Your task to perform on an android device: Go to internet settings Image 0: 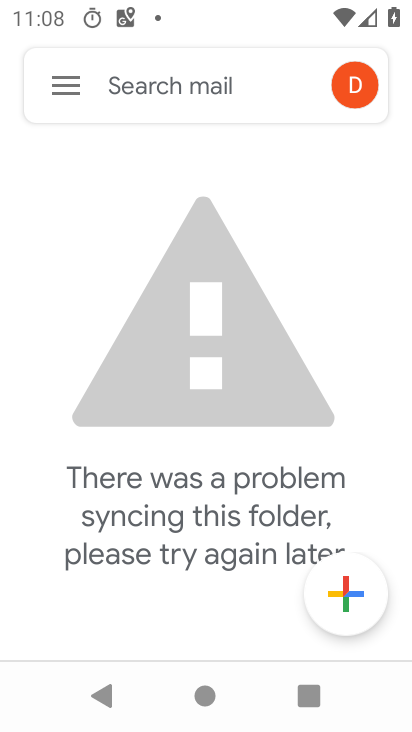
Step 0: press home button
Your task to perform on an android device: Go to internet settings Image 1: 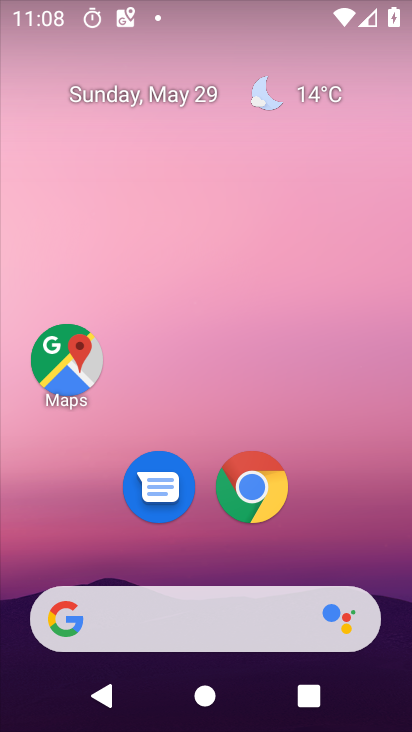
Step 1: drag from (389, 701) to (275, 106)
Your task to perform on an android device: Go to internet settings Image 2: 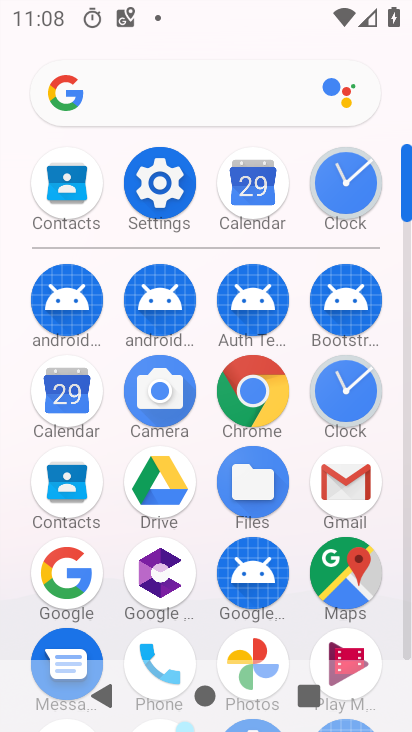
Step 2: click (158, 194)
Your task to perform on an android device: Go to internet settings Image 3: 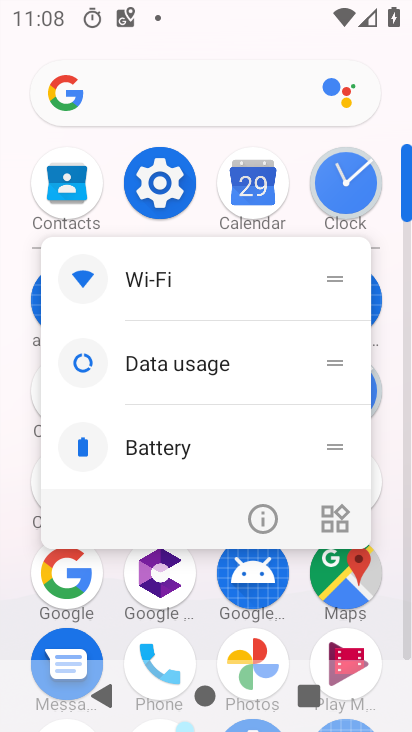
Step 3: click (151, 180)
Your task to perform on an android device: Go to internet settings Image 4: 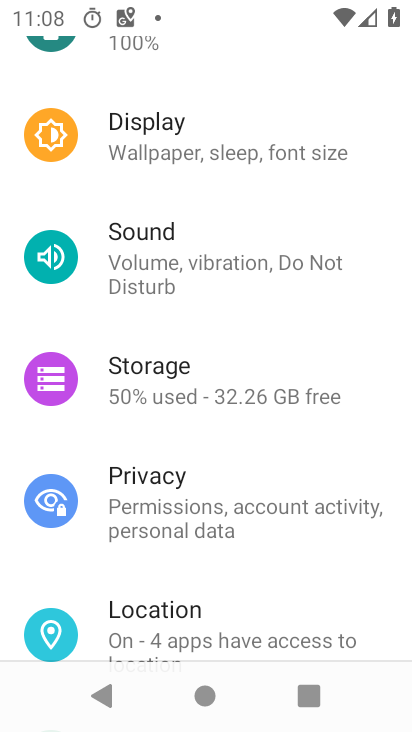
Step 4: drag from (359, 97) to (328, 596)
Your task to perform on an android device: Go to internet settings Image 5: 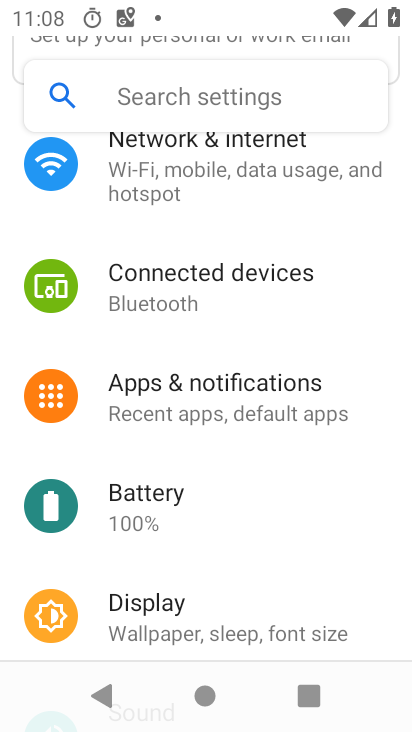
Step 5: drag from (348, 229) to (318, 606)
Your task to perform on an android device: Go to internet settings Image 6: 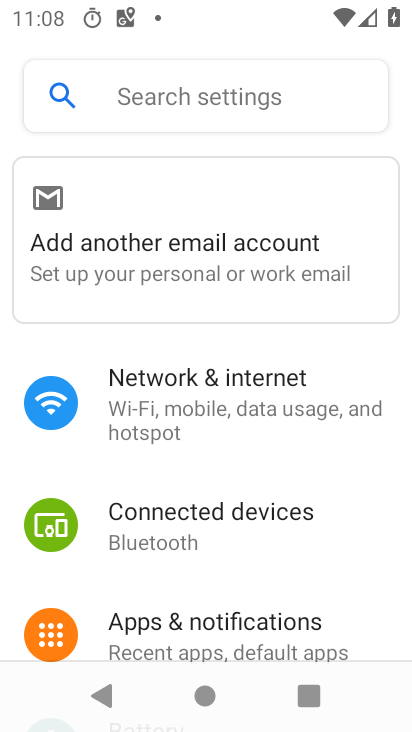
Step 6: click (187, 391)
Your task to perform on an android device: Go to internet settings Image 7: 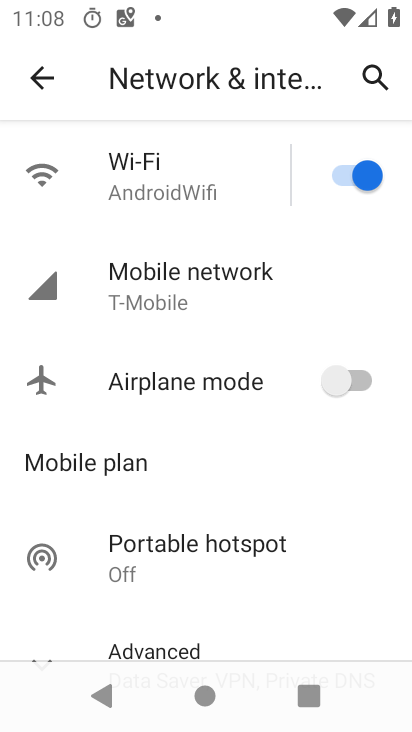
Step 7: drag from (290, 178) to (283, 490)
Your task to perform on an android device: Go to internet settings Image 8: 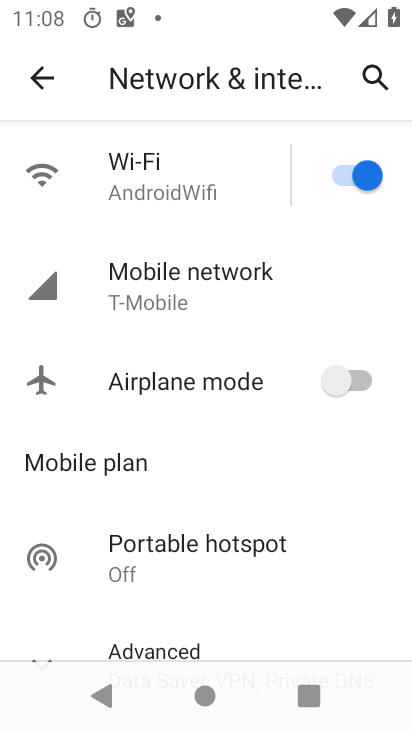
Step 8: click (168, 283)
Your task to perform on an android device: Go to internet settings Image 9: 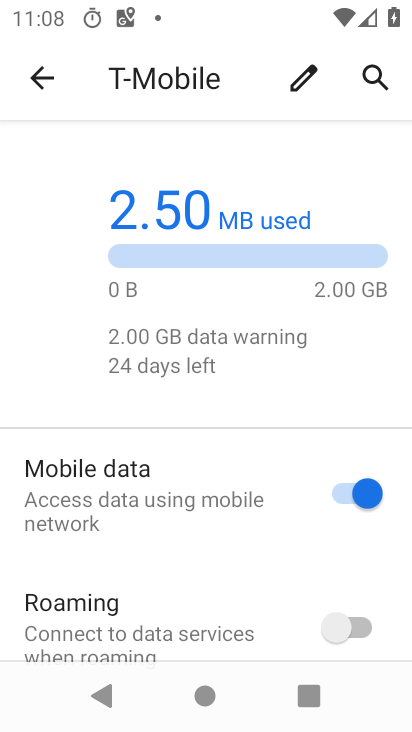
Step 9: task complete